Your task to perform on an android device: read, delete, or share a saved page in the chrome app Image 0: 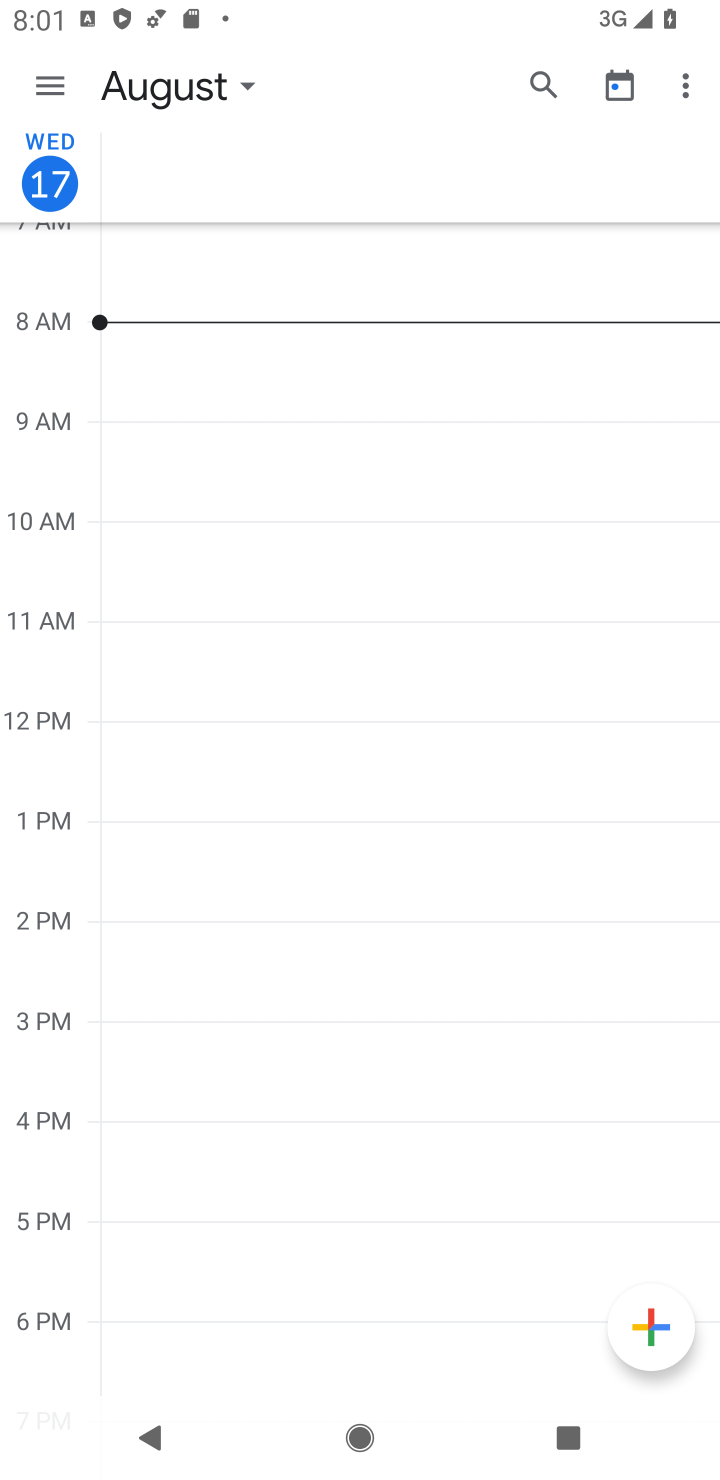
Step 0: press home button
Your task to perform on an android device: read, delete, or share a saved page in the chrome app Image 1: 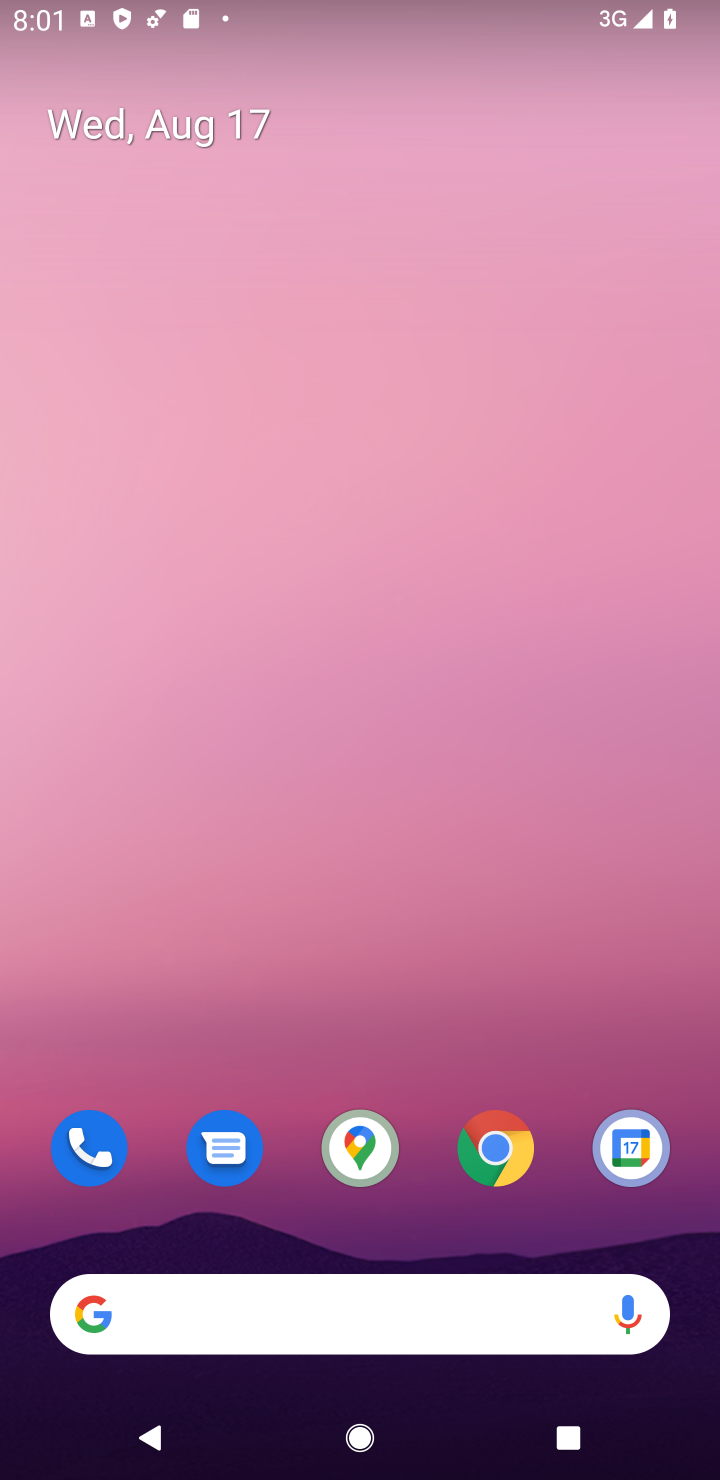
Step 1: click (499, 1153)
Your task to perform on an android device: read, delete, or share a saved page in the chrome app Image 2: 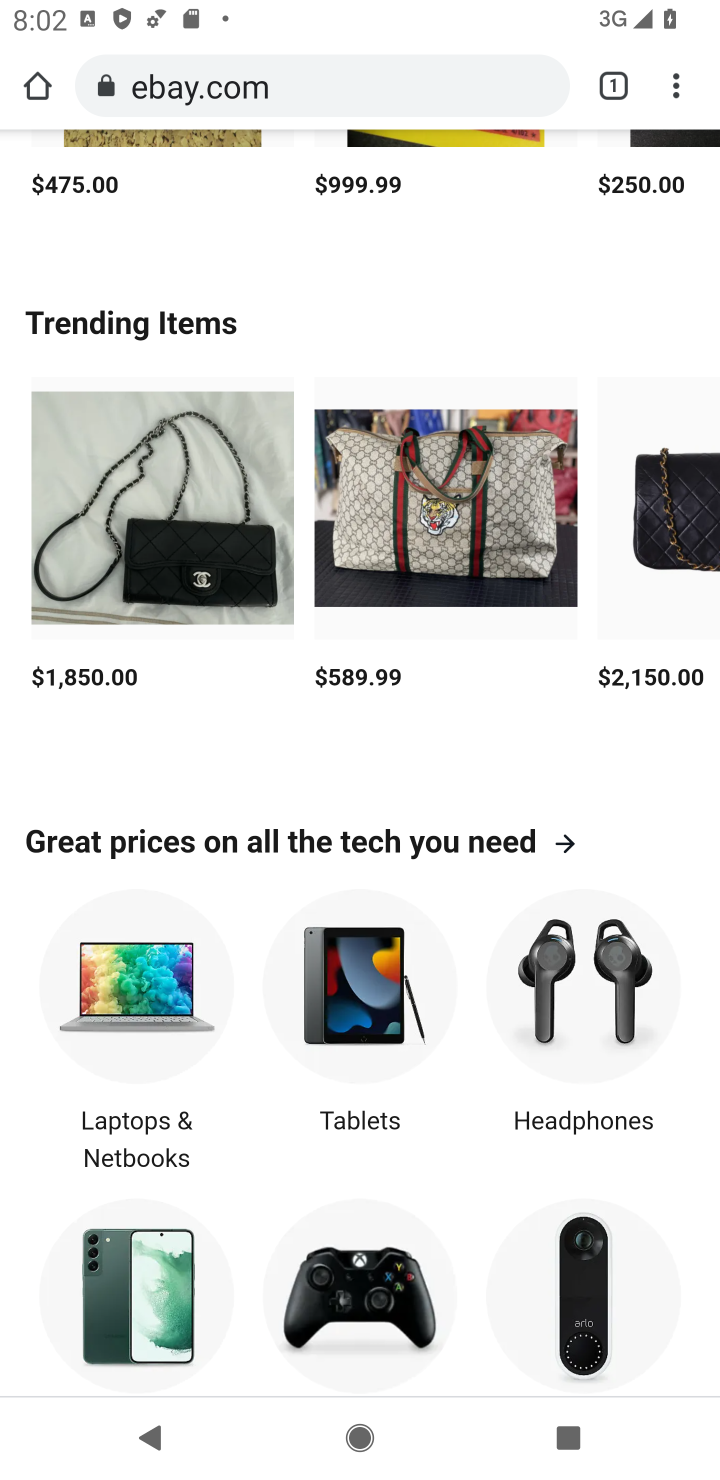
Step 2: click (676, 96)
Your task to perform on an android device: read, delete, or share a saved page in the chrome app Image 3: 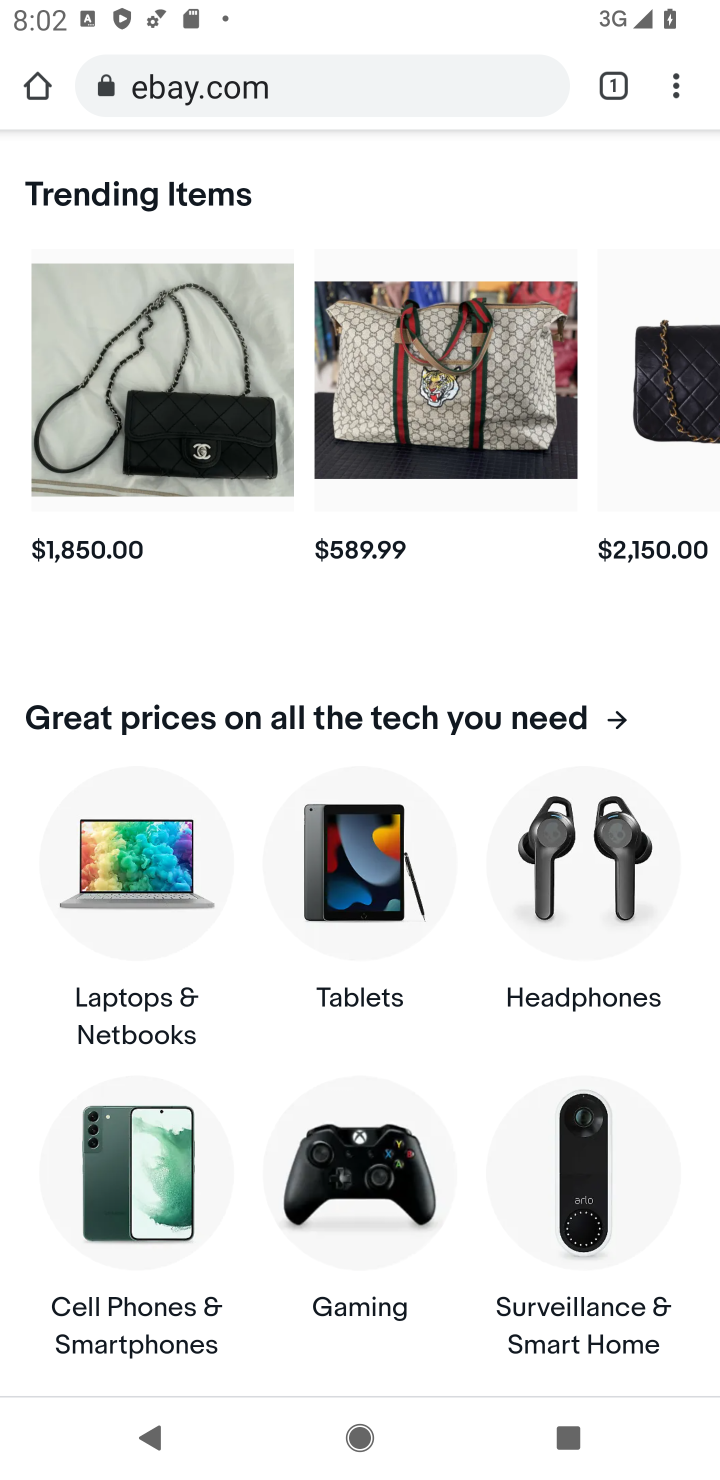
Step 3: click (665, 98)
Your task to perform on an android device: read, delete, or share a saved page in the chrome app Image 4: 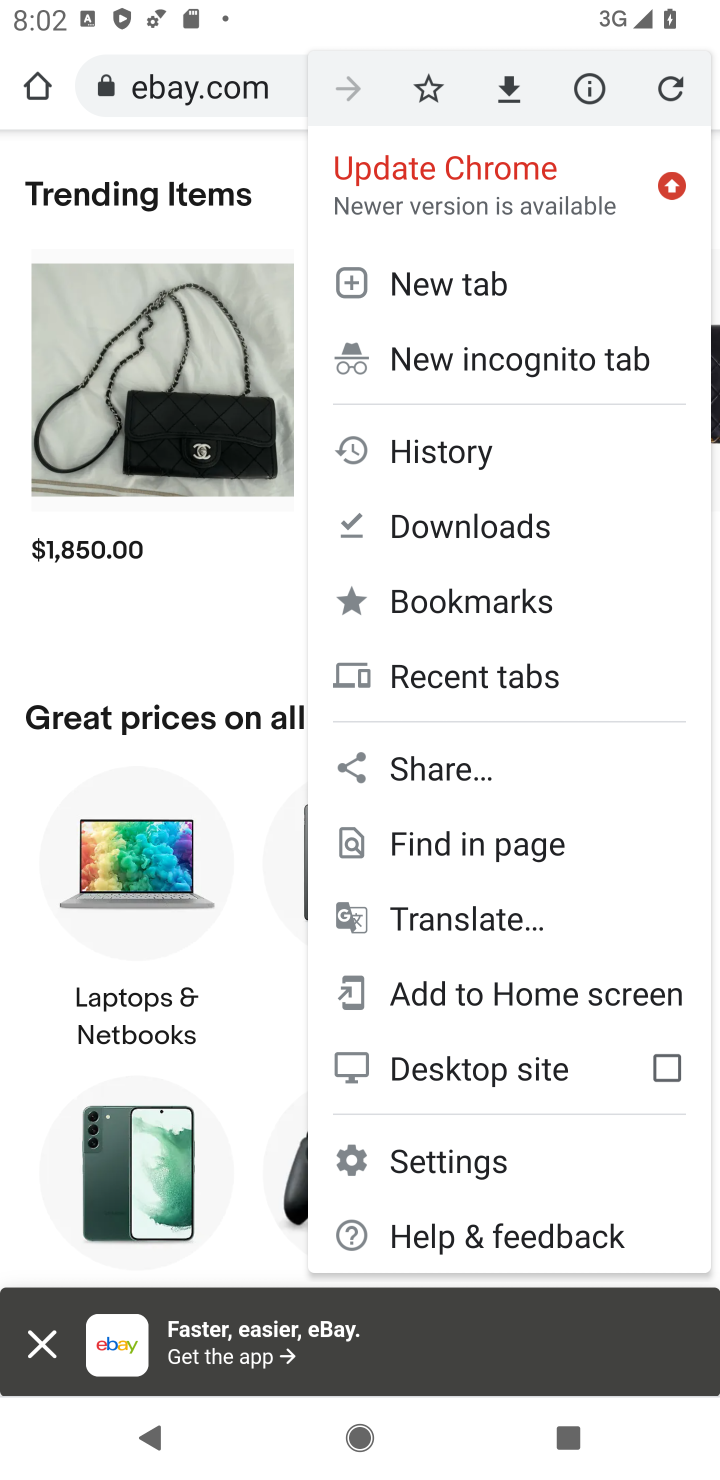
Step 4: click (451, 519)
Your task to perform on an android device: read, delete, or share a saved page in the chrome app Image 5: 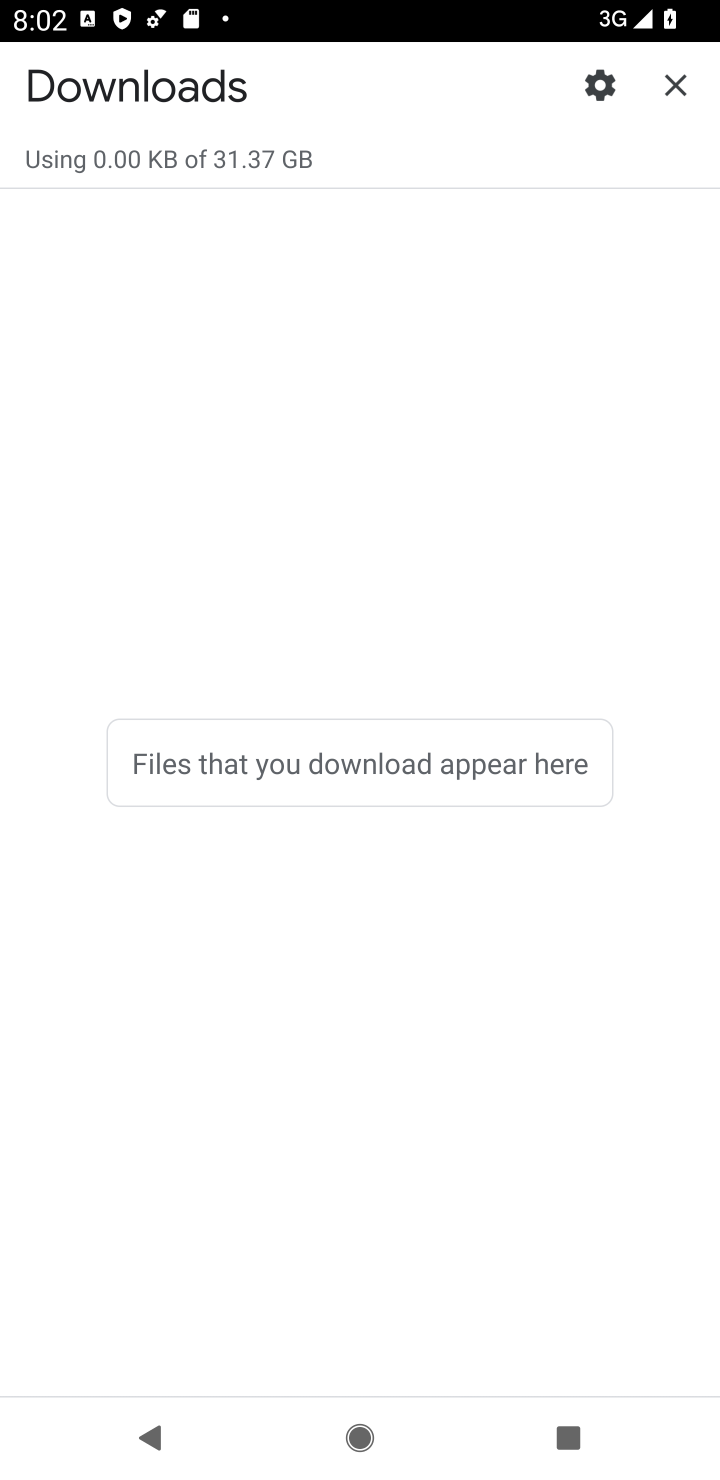
Step 5: task complete